Your task to perform on an android device: Open the map Image 0: 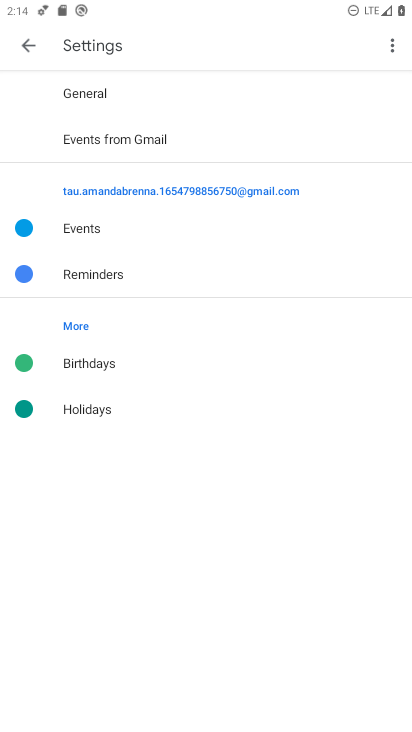
Step 0: press home button
Your task to perform on an android device: Open the map Image 1: 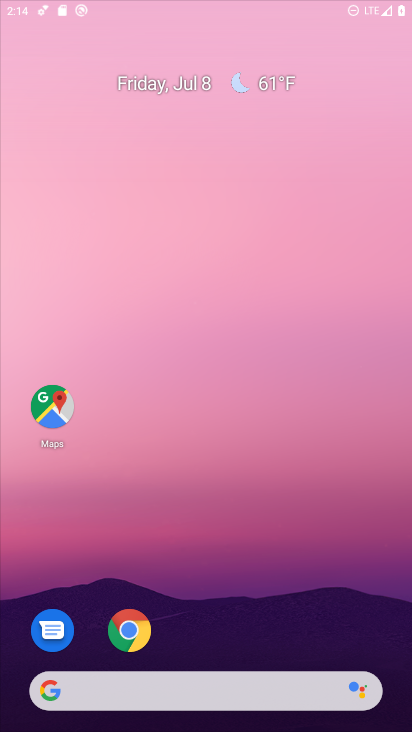
Step 1: drag from (380, 653) to (246, 41)
Your task to perform on an android device: Open the map Image 2: 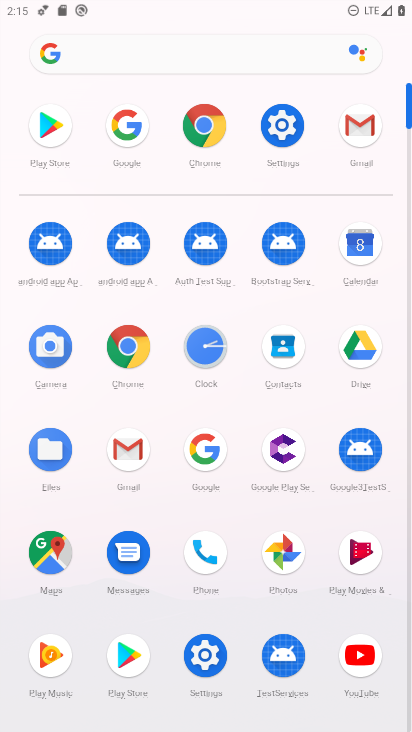
Step 2: click (56, 550)
Your task to perform on an android device: Open the map Image 3: 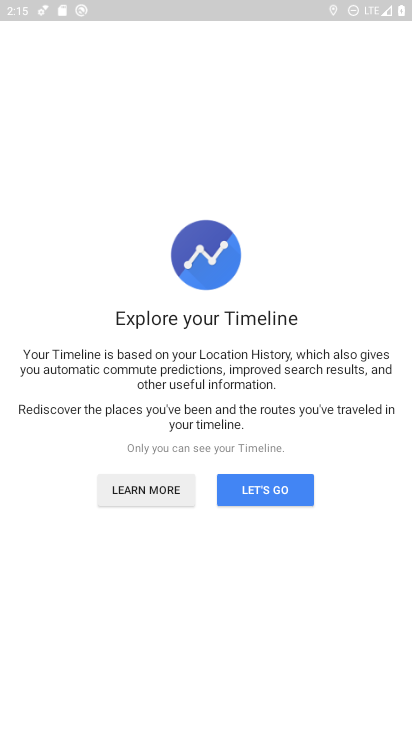
Step 3: task complete